Your task to perform on an android device: turn on location history Image 0: 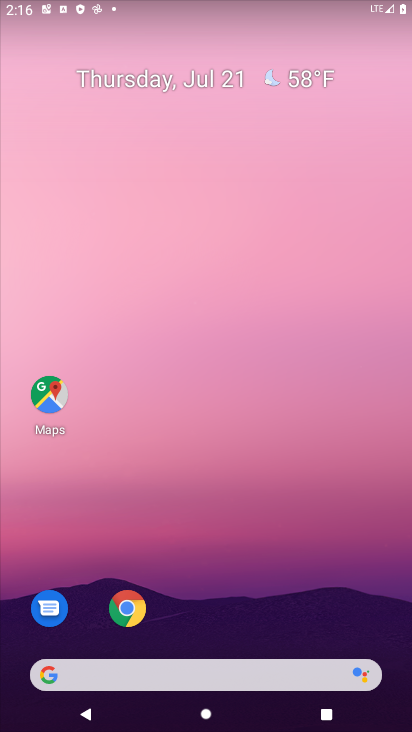
Step 0: drag from (303, 592) to (133, 53)
Your task to perform on an android device: turn on location history Image 1: 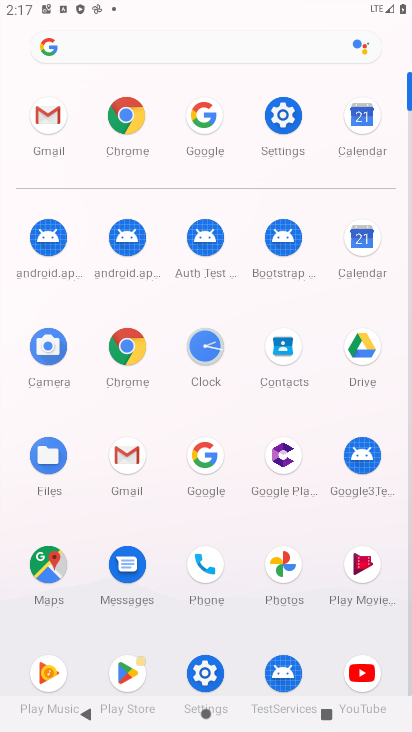
Step 1: click (208, 664)
Your task to perform on an android device: turn on location history Image 2: 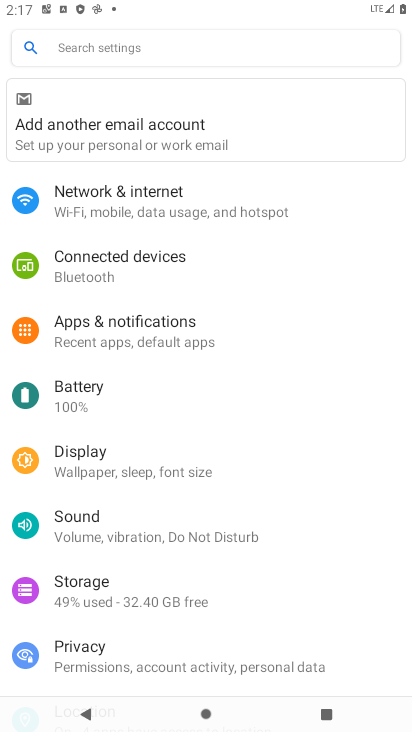
Step 2: drag from (92, 637) to (124, 314)
Your task to perform on an android device: turn on location history Image 3: 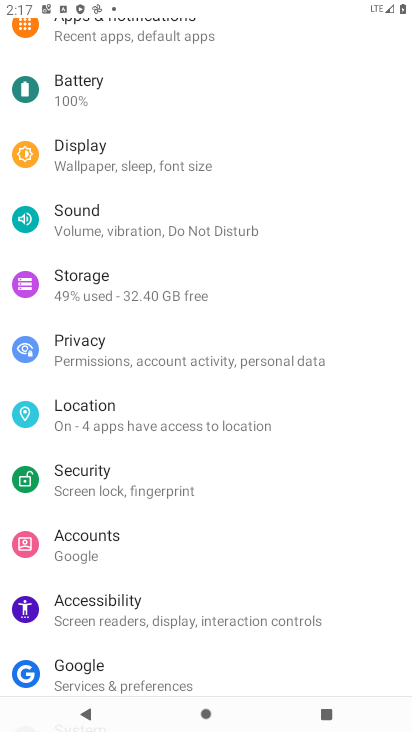
Step 3: click (98, 407)
Your task to perform on an android device: turn on location history Image 4: 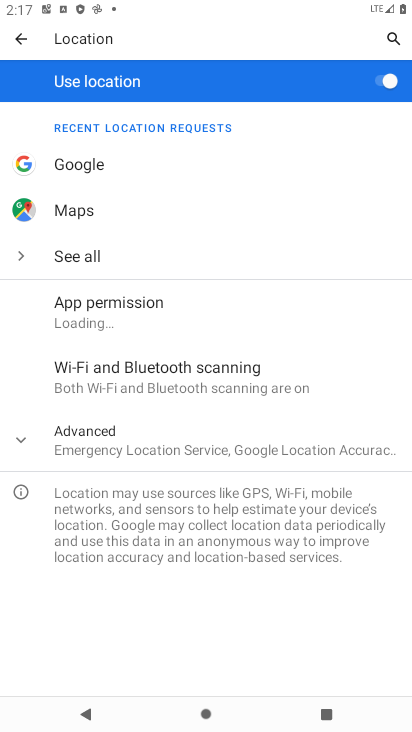
Step 4: click (108, 431)
Your task to perform on an android device: turn on location history Image 5: 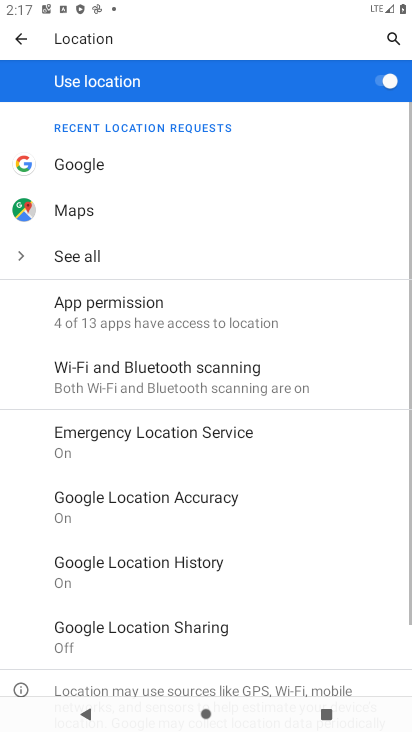
Step 5: click (132, 563)
Your task to perform on an android device: turn on location history Image 6: 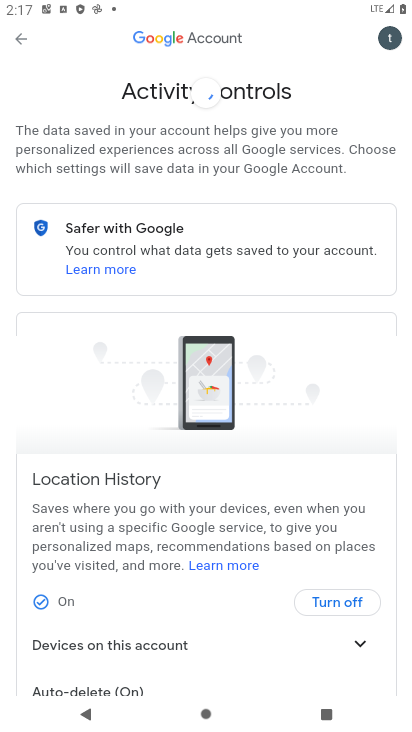
Step 6: click (323, 603)
Your task to perform on an android device: turn on location history Image 7: 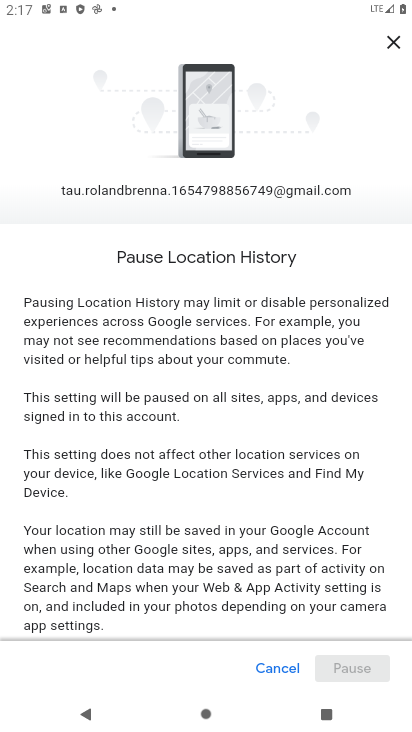
Step 7: task complete